Your task to perform on an android device: Go to wifi settings Image 0: 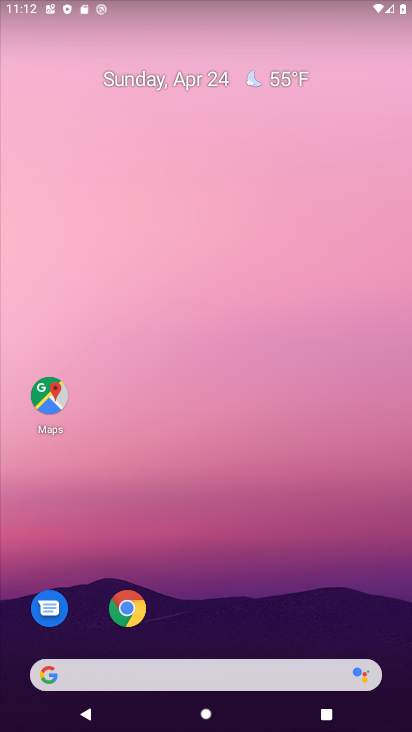
Step 0: drag from (65, 29) to (146, 495)
Your task to perform on an android device: Go to wifi settings Image 1: 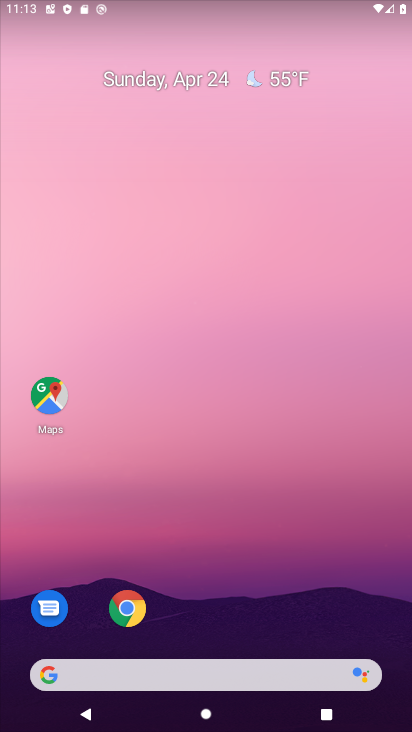
Step 1: drag from (113, 8) to (118, 403)
Your task to perform on an android device: Go to wifi settings Image 2: 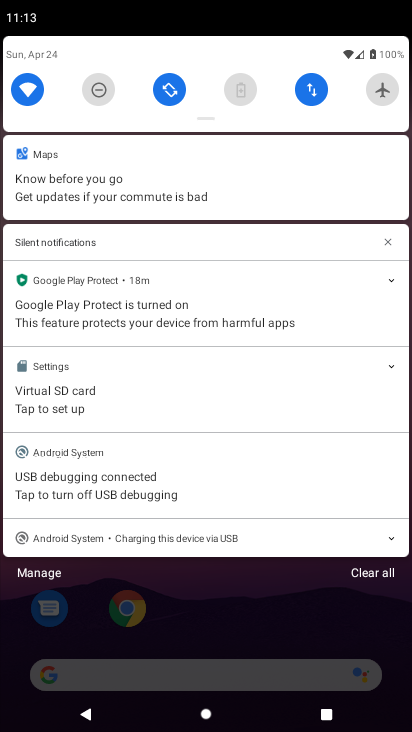
Step 2: click (30, 84)
Your task to perform on an android device: Go to wifi settings Image 3: 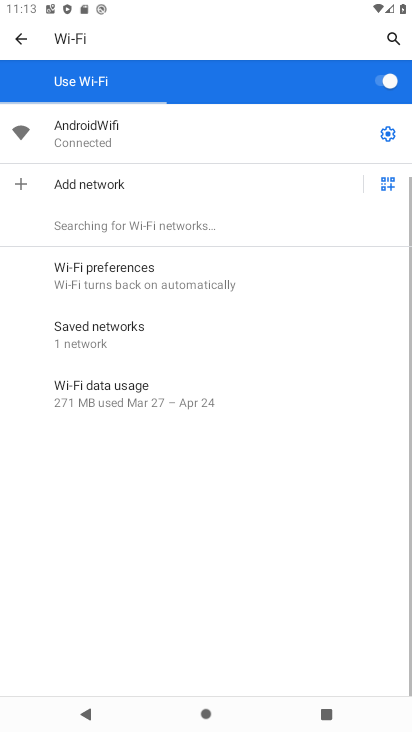
Step 3: task complete